Your task to perform on an android device: turn notification dots off Image 0: 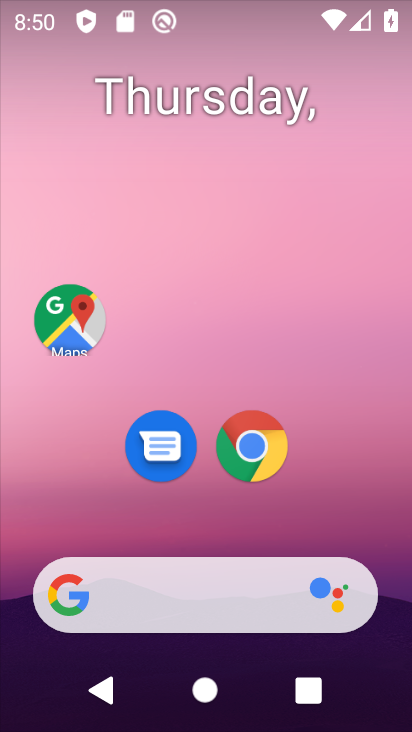
Step 0: press home button
Your task to perform on an android device: turn notification dots off Image 1: 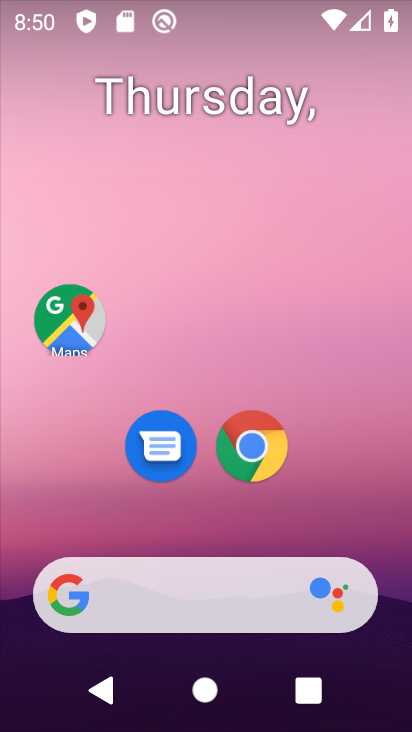
Step 1: drag from (366, 535) to (311, 296)
Your task to perform on an android device: turn notification dots off Image 2: 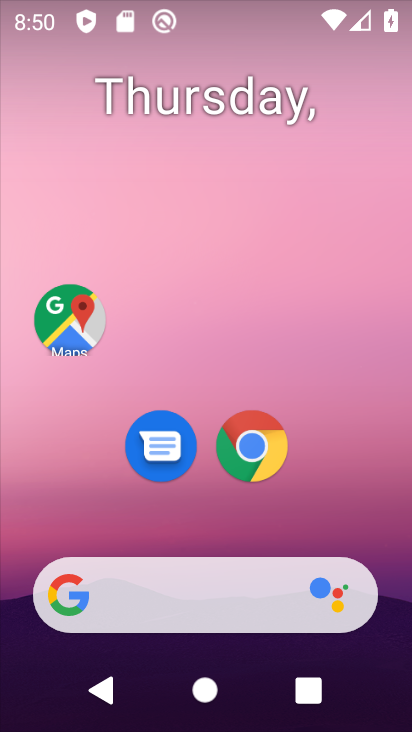
Step 2: drag from (380, 532) to (294, 13)
Your task to perform on an android device: turn notification dots off Image 3: 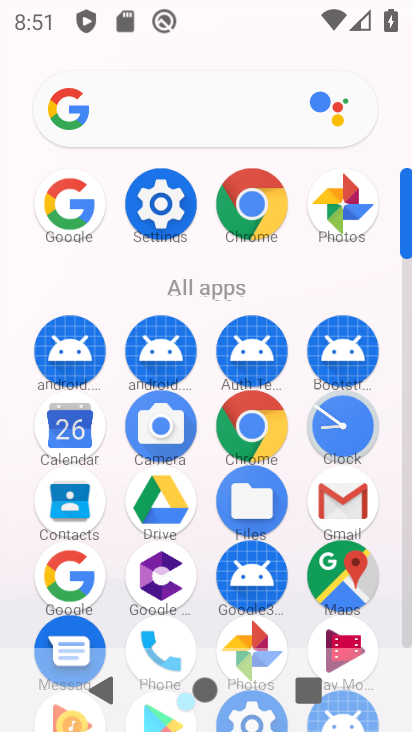
Step 3: click (405, 633)
Your task to perform on an android device: turn notification dots off Image 4: 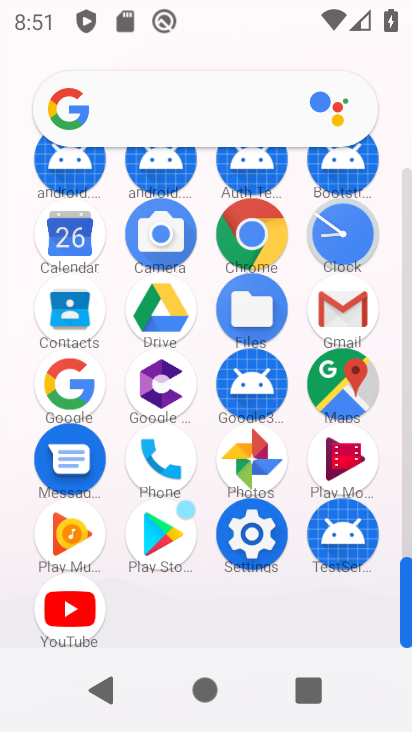
Step 4: click (245, 541)
Your task to perform on an android device: turn notification dots off Image 5: 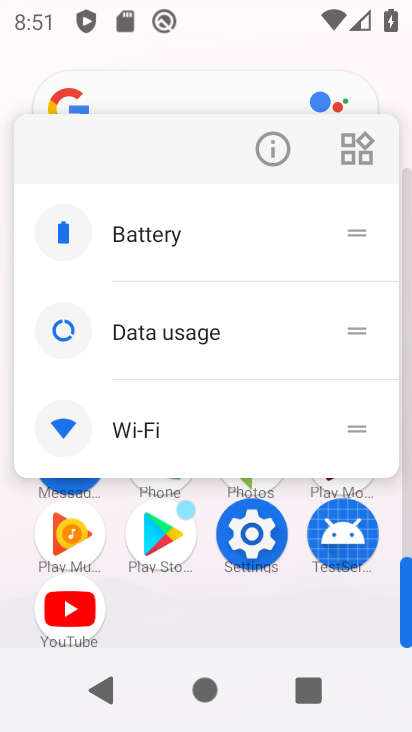
Step 5: click (254, 519)
Your task to perform on an android device: turn notification dots off Image 6: 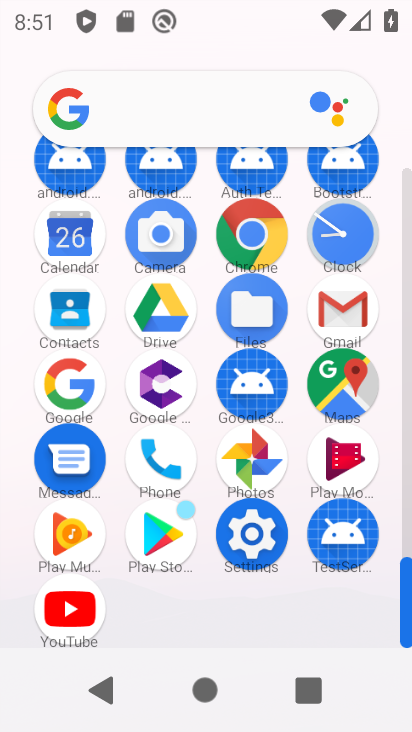
Step 6: click (254, 519)
Your task to perform on an android device: turn notification dots off Image 7: 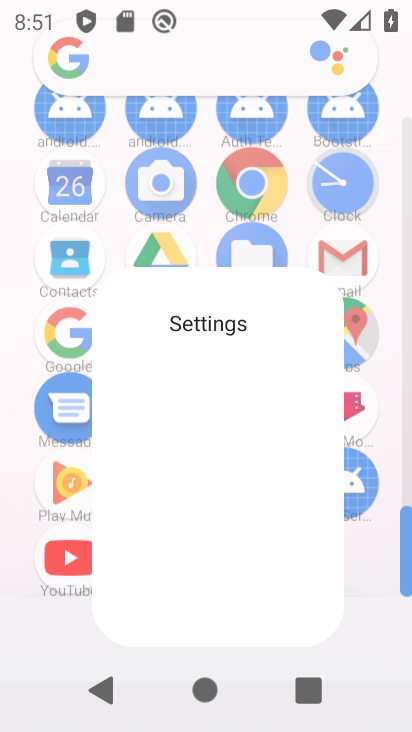
Step 7: click (254, 519)
Your task to perform on an android device: turn notification dots off Image 8: 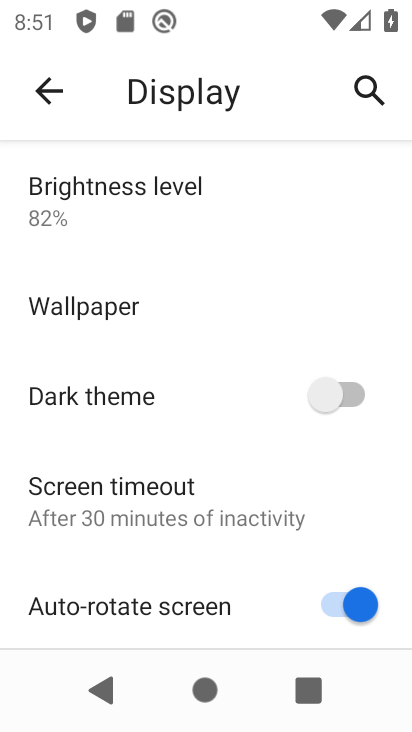
Step 8: click (53, 93)
Your task to perform on an android device: turn notification dots off Image 9: 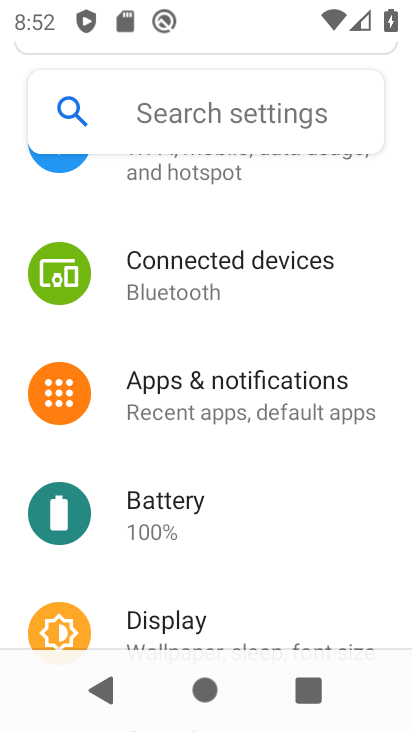
Step 9: click (205, 387)
Your task to perform on an android device: turn notification dots off Image 10: 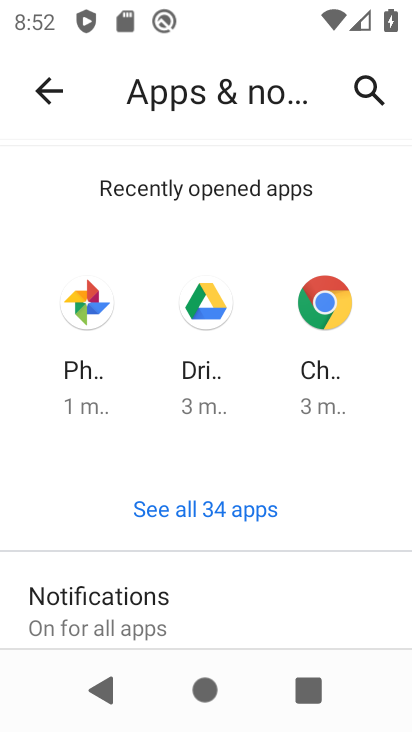
Step 10: click (146, 599)
Your task to perform on an android device: turn notification dots off Image 11: 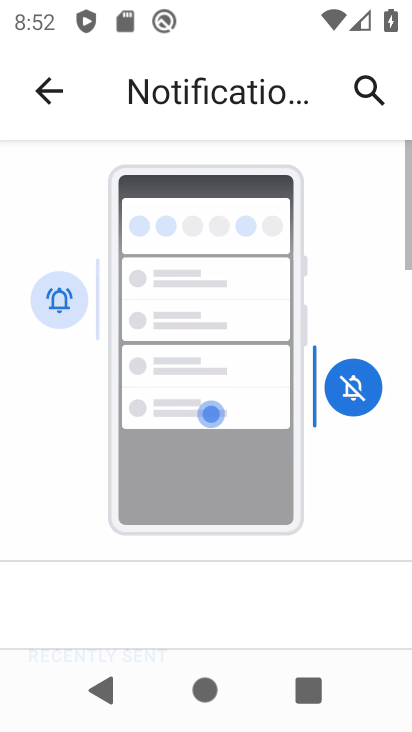
Step 11: drag from (146, 599) to (217, 0)
Your task to perform on an android device: turn notification dots off Image 12: 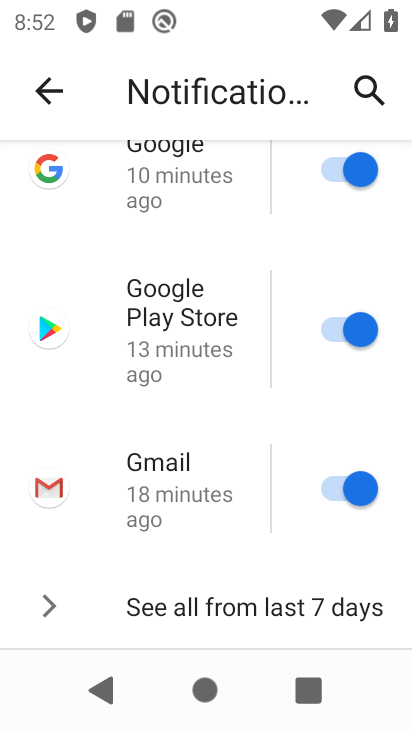
Step 12: drag from (202, 562) to (294, 119)
Your task to perform on an android device: turn notification dots off Image 13: 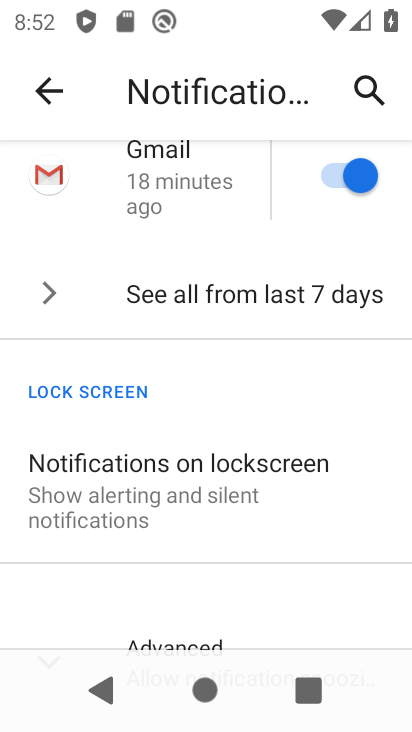
Step 13: drag from (257, 444) to (317, 75)
Your task to perform on an android device: turn notification dots off Image 14: 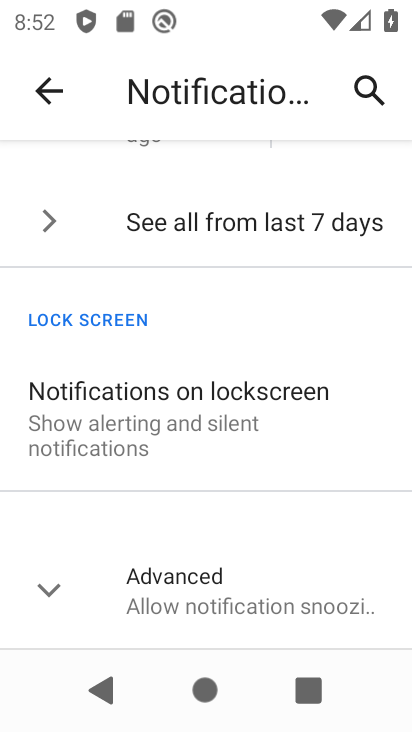
Step 14: click (230, 583)
Your task to perform on an android device: turn notification dots off Image 15: 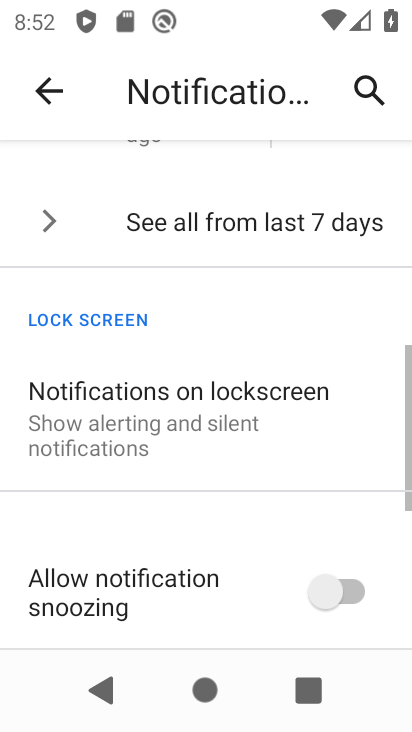
Step 15: drag from (230, 583) to (211, 125)
Your task to perform on an android device: turn notification dots off Image 16: 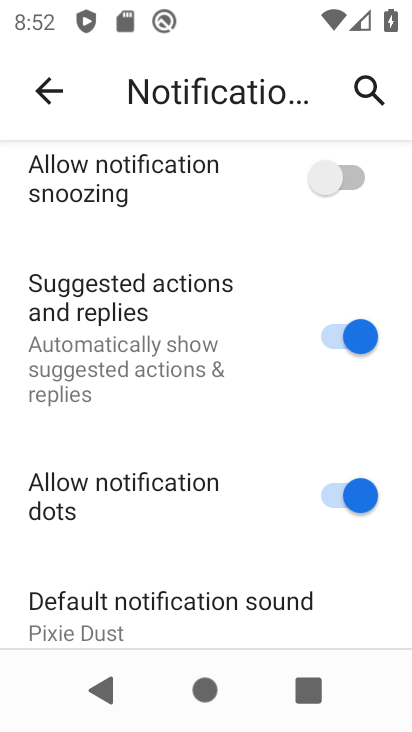
Step 16: click (227, 492)
Your task to perform on an android device: turn notification dots off Image 17: 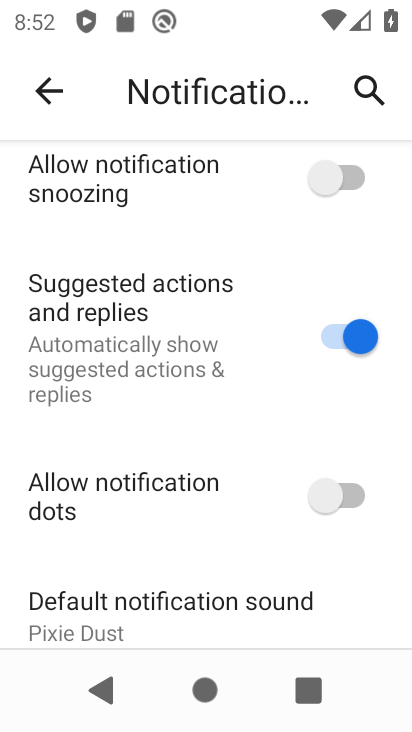
Step 17: task complete